Your task to perform on an android device: turn off translation in the chrome app Image 0: 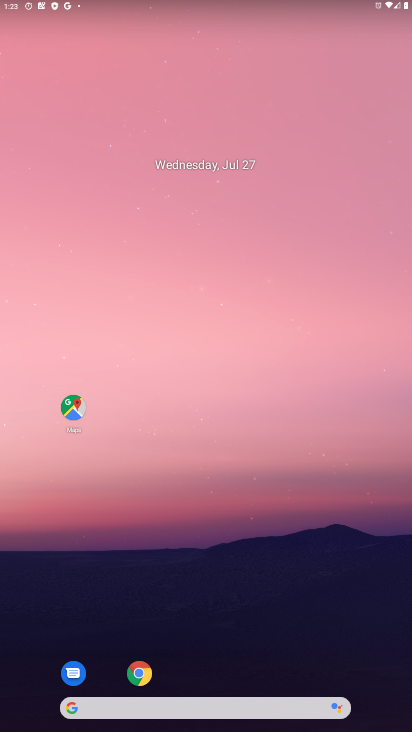
Step 0: click (141, 677)
Your task to perform on an android device: turn off translation in the chrome app Image 1: 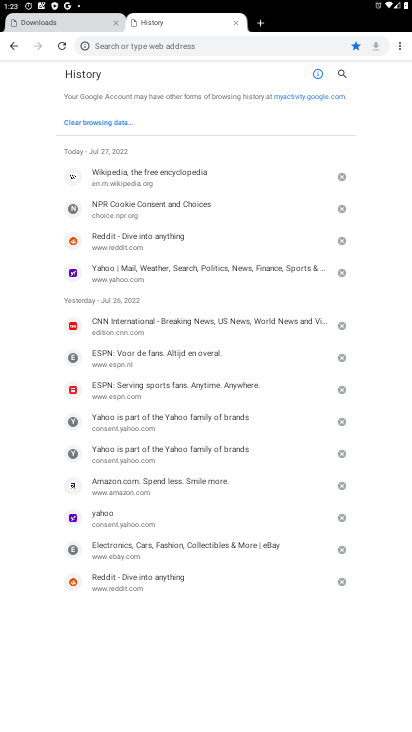
Step 1: drag from (398, 53) to (322, 214)
Your task to perform on an android device: turn off translation in the chrome app Image 2: 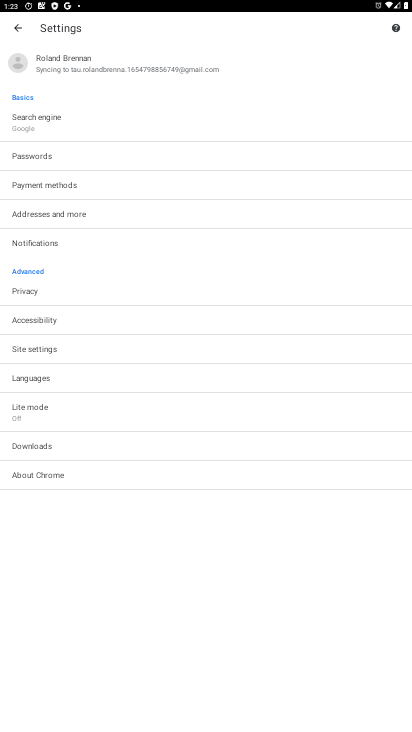
Step 2: click (24, 378)
Your task to perform on an android device: turn off translation in the chrome app Image 3: 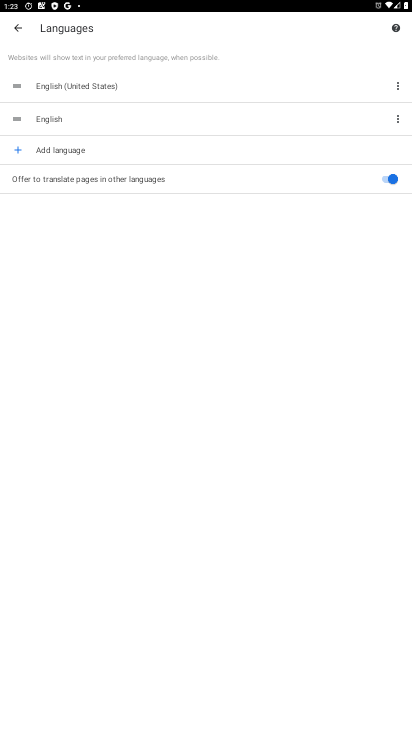
Step 3: click (387, 183)
Your task to perform on an android device: turn off translation in the chrome app Image 4: 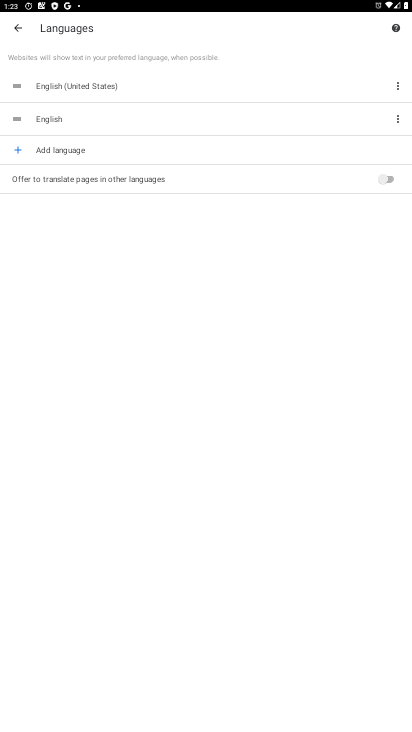
Step 4: task complete